Your task to perform on an android device: install app "Paramount+ | Peak Streaming" Image 0: 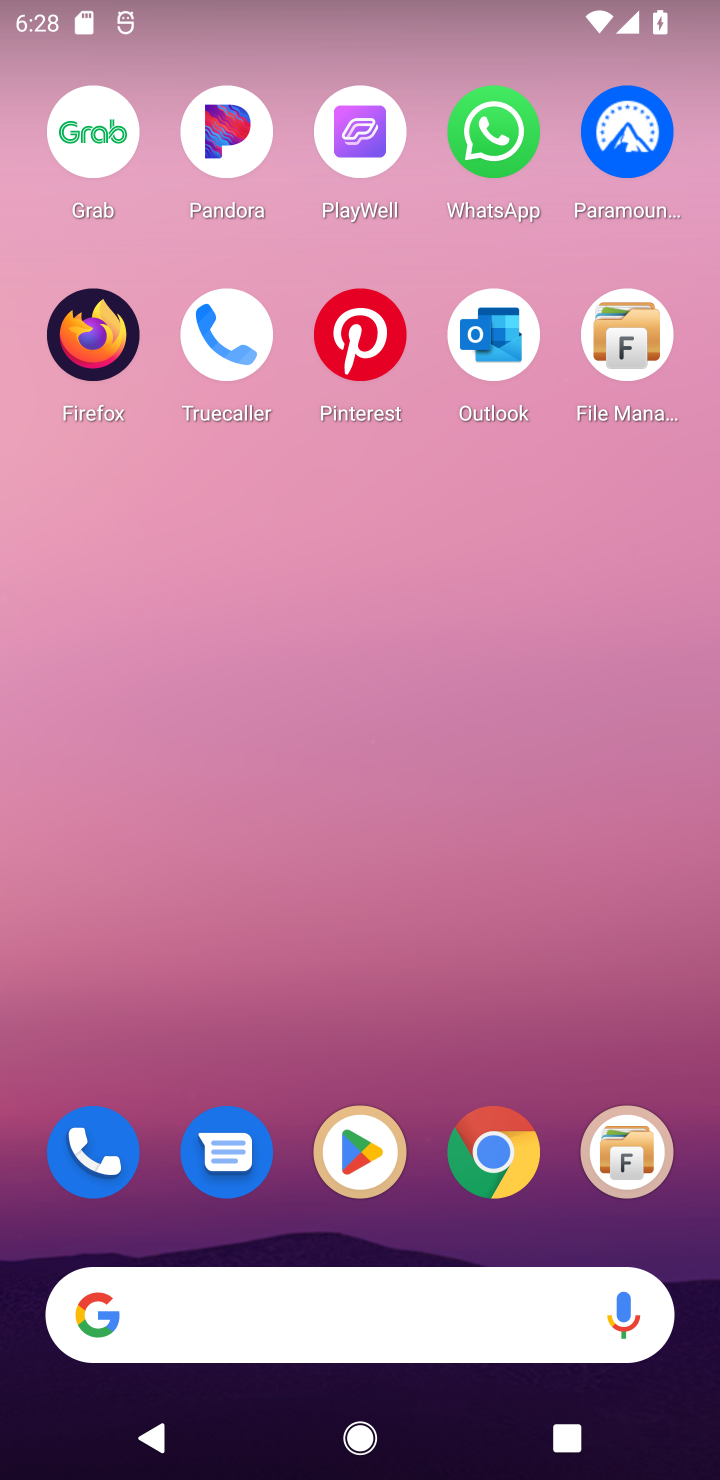
Step 0: click (356, 1166)
Your task to perform on an android device: install app "Paramount+ | Peak Streaming" Image 1: 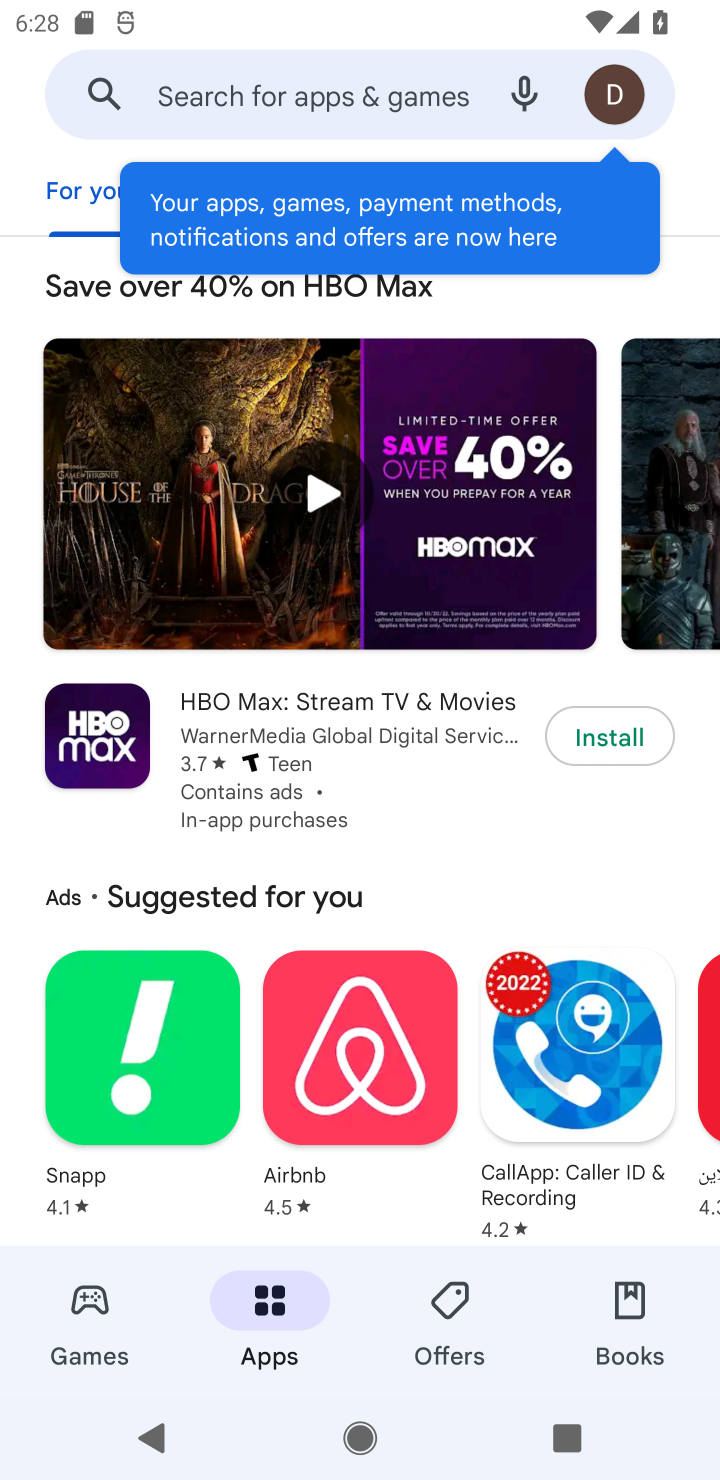
Step 1: click (292, 93)
Your task to perform on an android device: install app "Paramount+ | Peak Streaming" Image 2: 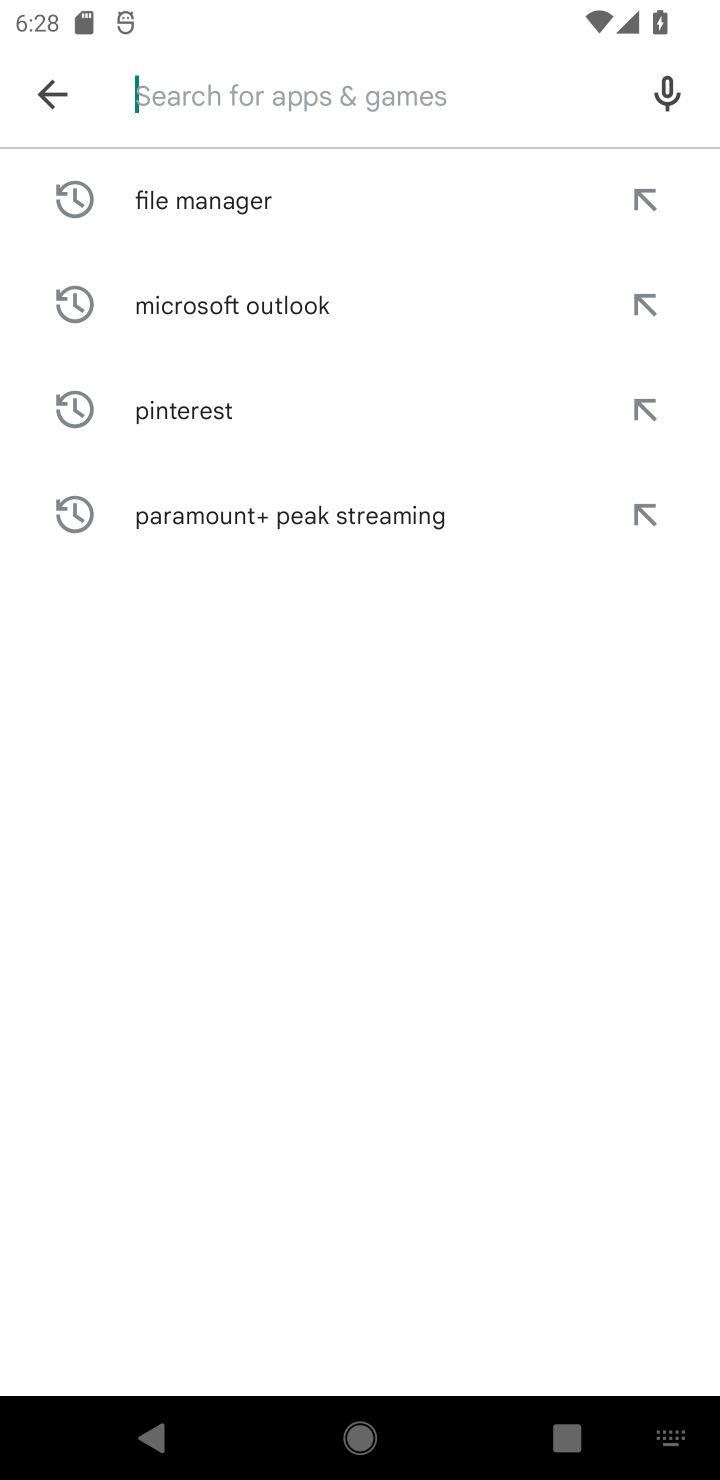
Step 2: type "Paramount+"
Your task to perform on an android device: install app "Paramount+ | Peak Streaming" Image 3: 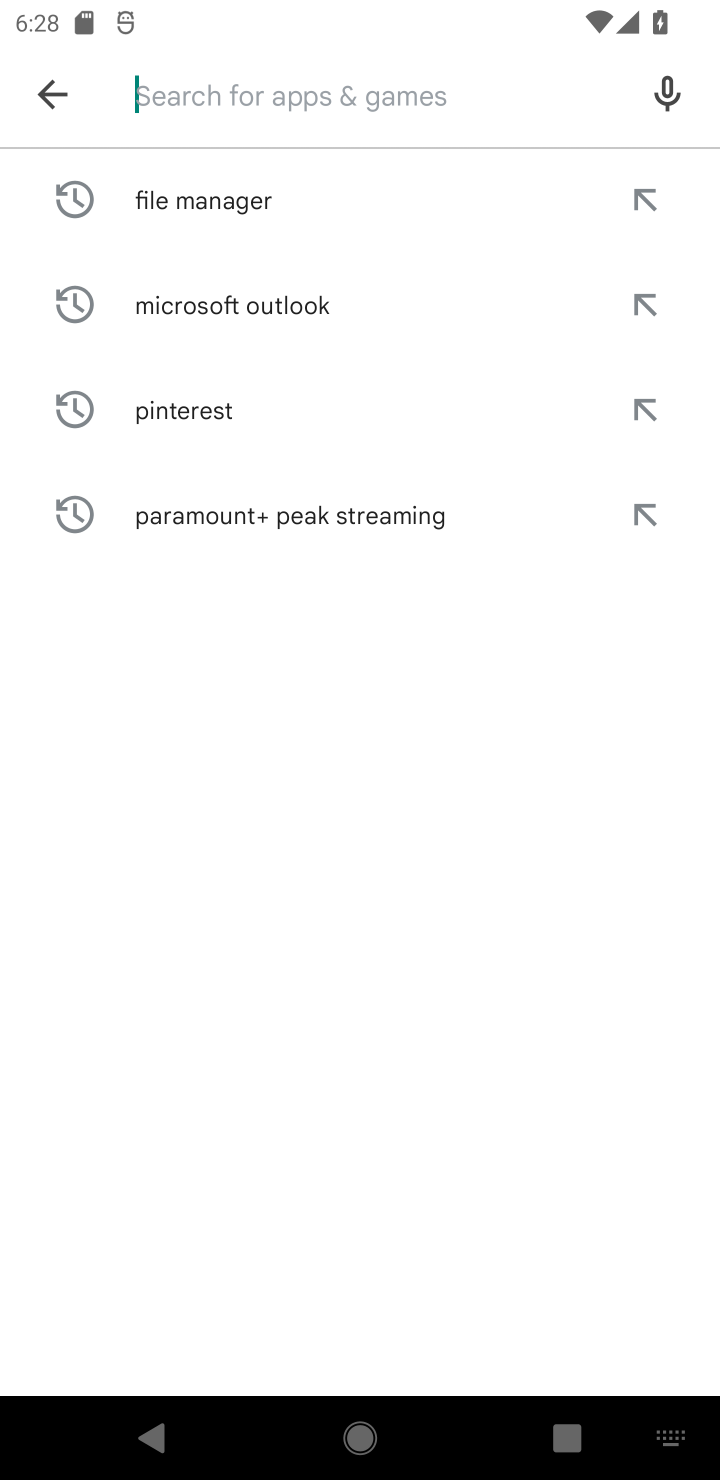
Step 3: click (339, 519)
Your task to perform on an android device: install app "Paramount+ | Peak Streaming" Image 4: 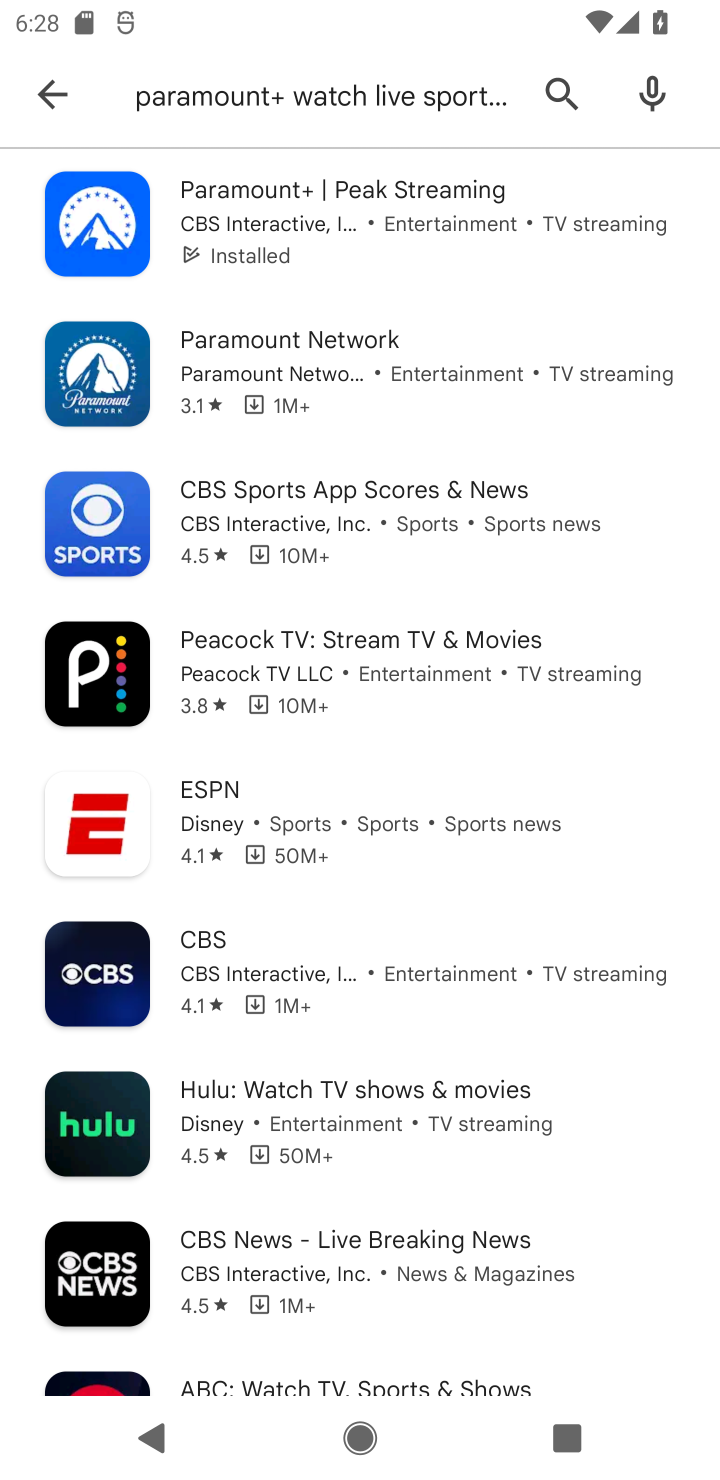
Step 4: click (311, 214)
Your task to perform on an android device: install app "Paramount+ | Peak Streaming" Image 5: 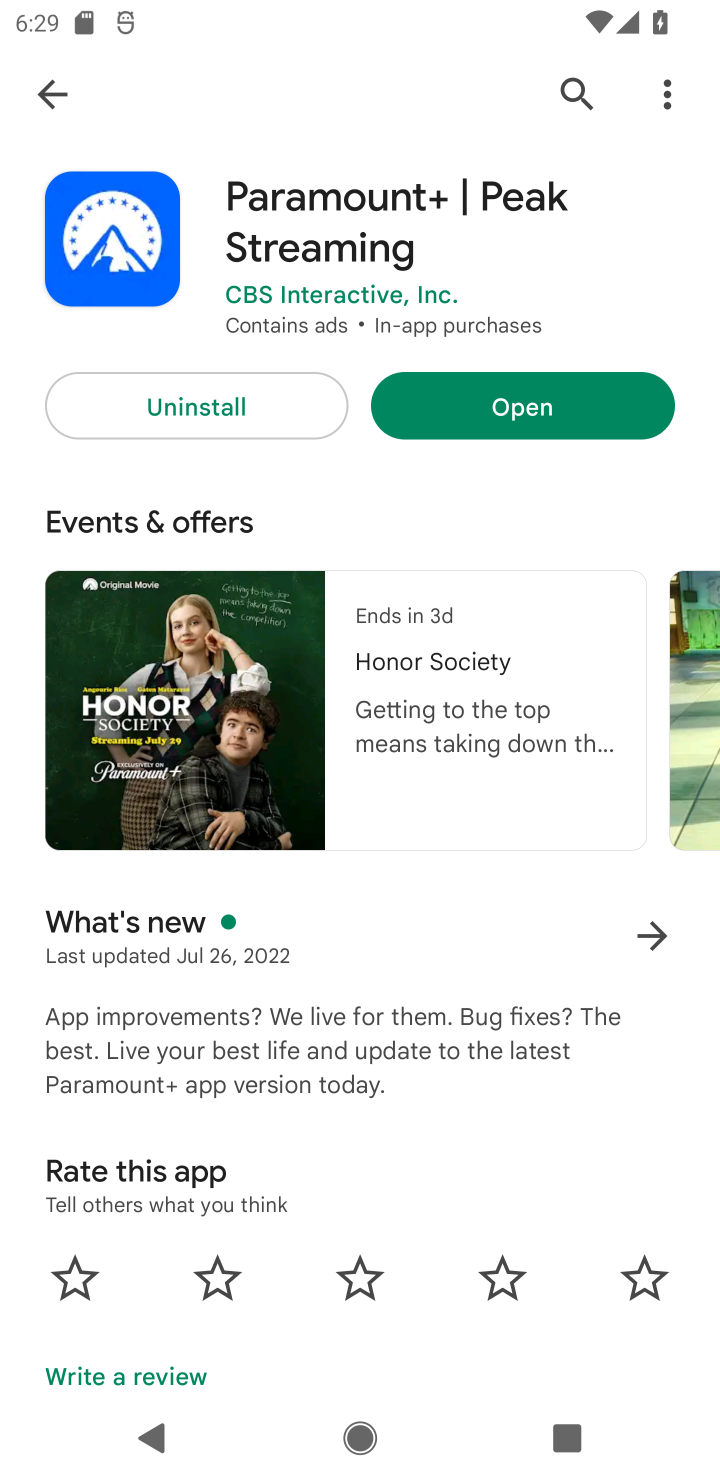
Step 5: task complete